Your task to perform on an android device: Turn off the flashlight Image 0: 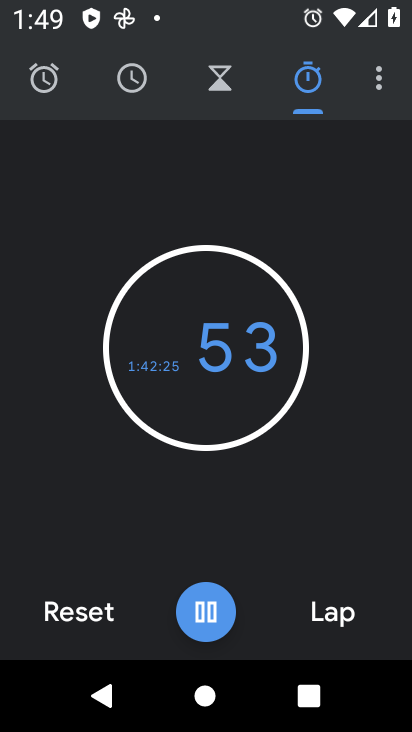
Step 0: press home button
Your task to perform on an android device: Turn off the flashlight Image 1: 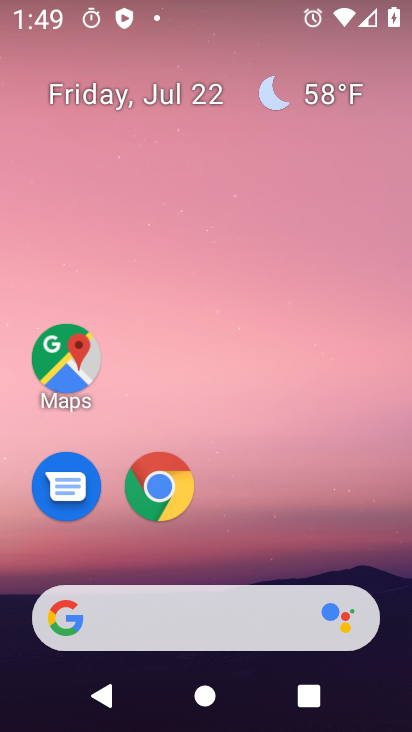
Step 1: drag from (250, 10) to (250, 320)
Your task to perform on an android device: Turn off the flashlight Image 2: 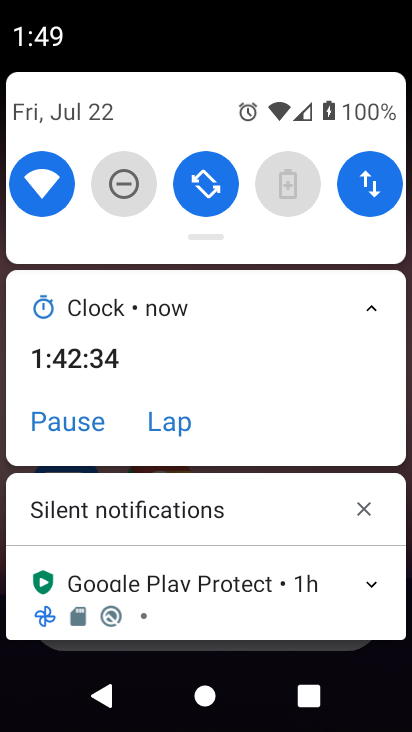
Step 2: drag from (237, 129) to (257, 406)
Your task to perform on an android device: Turn off the flashlight Image 3: 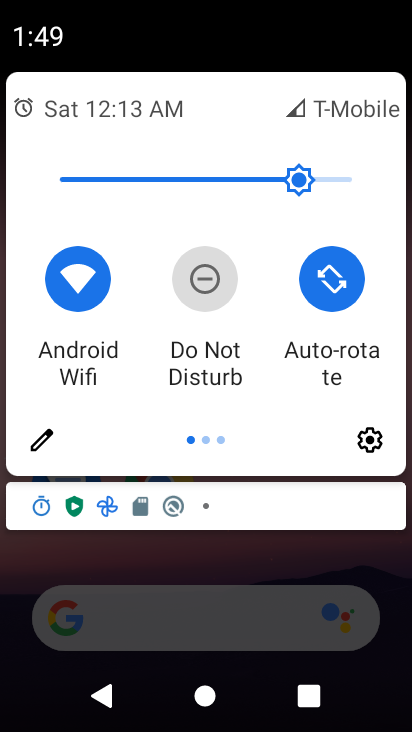
Step 3: click (57, 458)
Your task to perform on an android device: Turn off the flashlight Image 4: 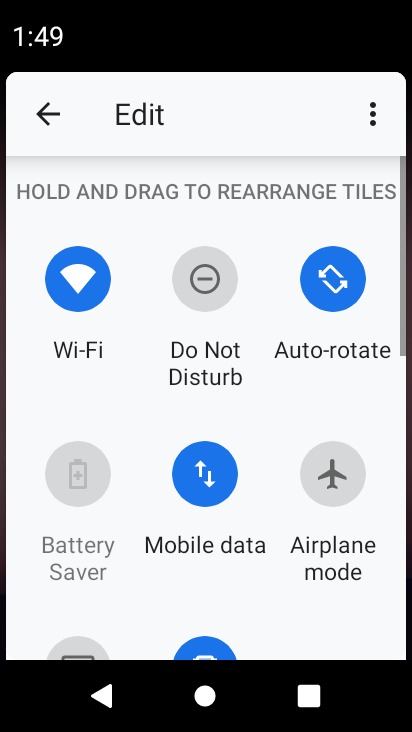
Step 4: task complete